Your task to perform on an android device: Open display settings Image 0: 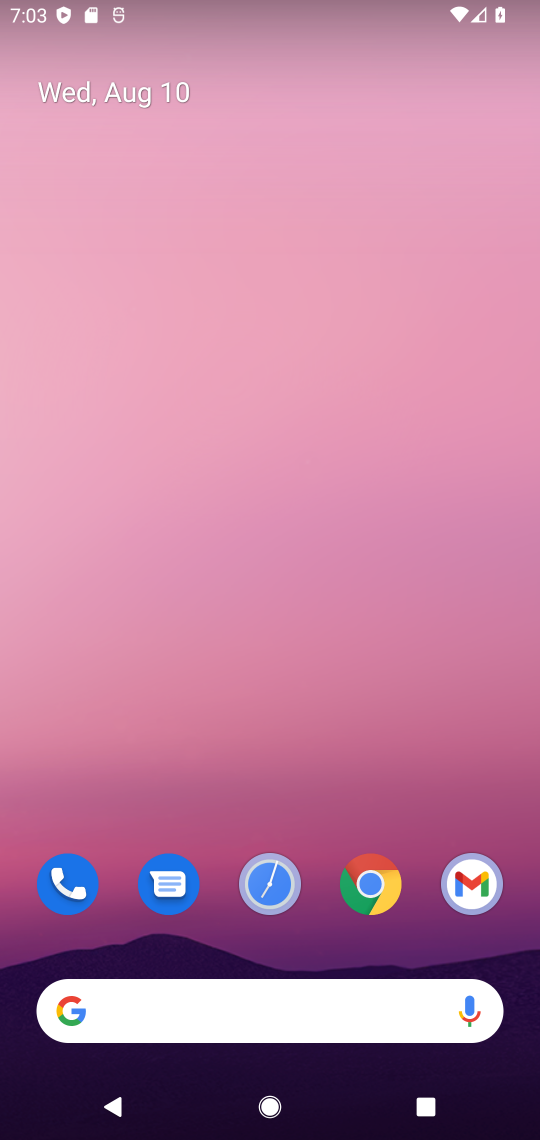
Step 0: drag from (319, 948) to (289, 210)
Your task to perform on an android device: Open display settings Image 1: 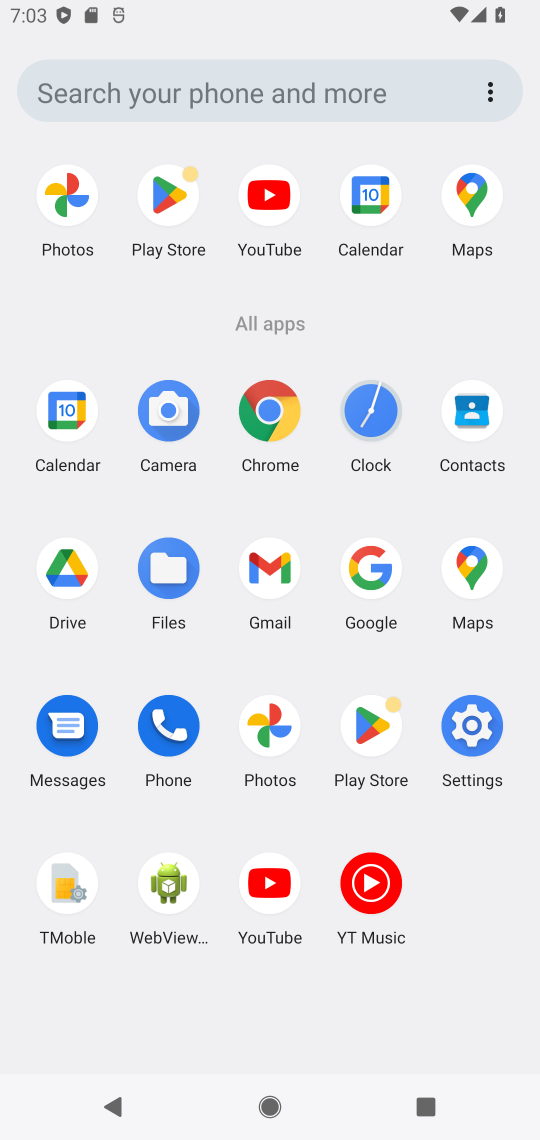
Step 1: click (473, 723)
Your task to perform on an android device: Open display settings Image 2: 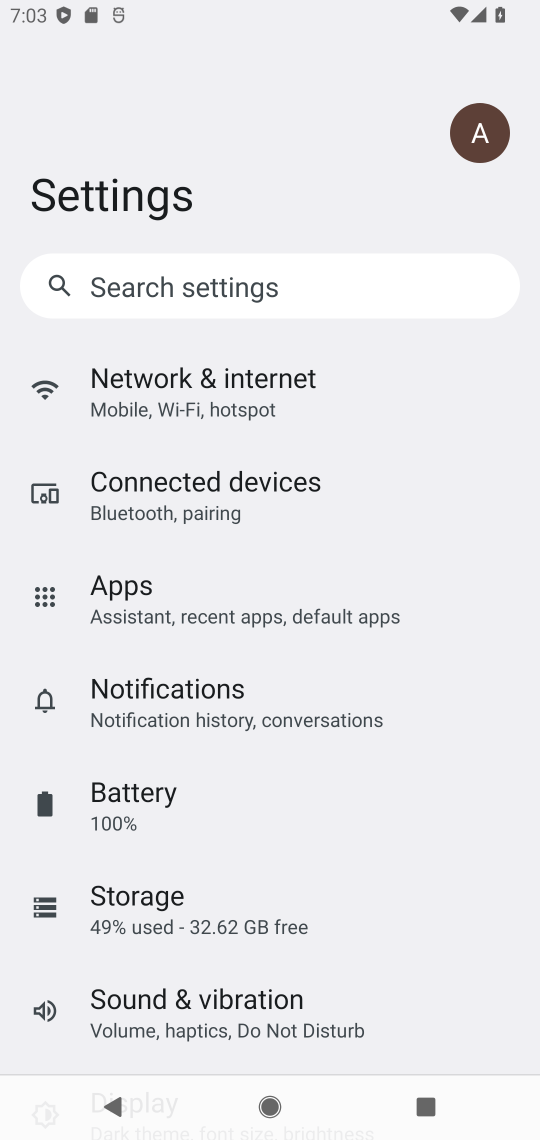
Step 2: drag from (315, 942) to (289, 474)
Your task to perform on an android device: Open display settings Image 3: 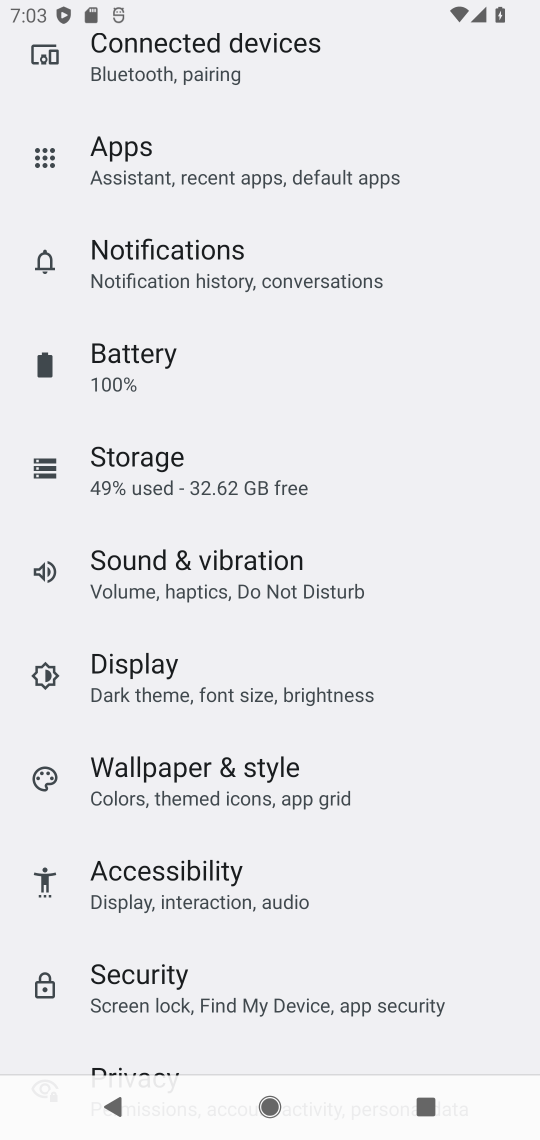
Step 3: click (132, 656)
Your task to perform on an android device: Open display settings Image 4: 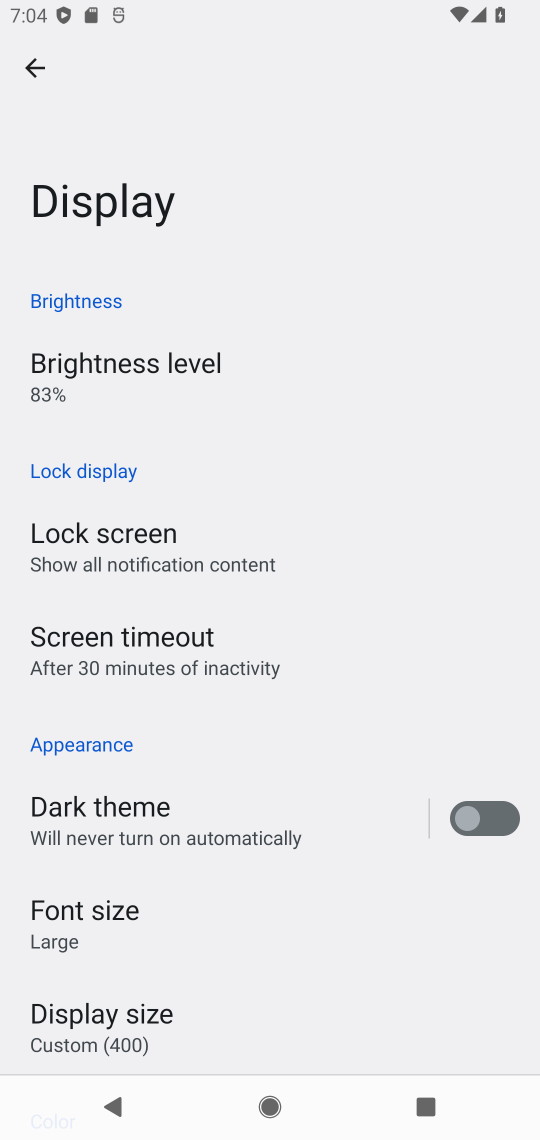
Step 4: task complete